Your task to perform on an android device: Go to Google maps Image 0: 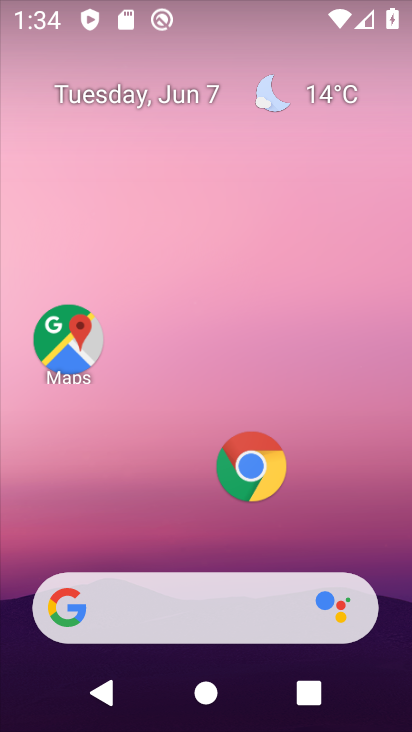
Step 0: click (68, 351)
Your task to perform on an android device: Go to Google maps Image 1: 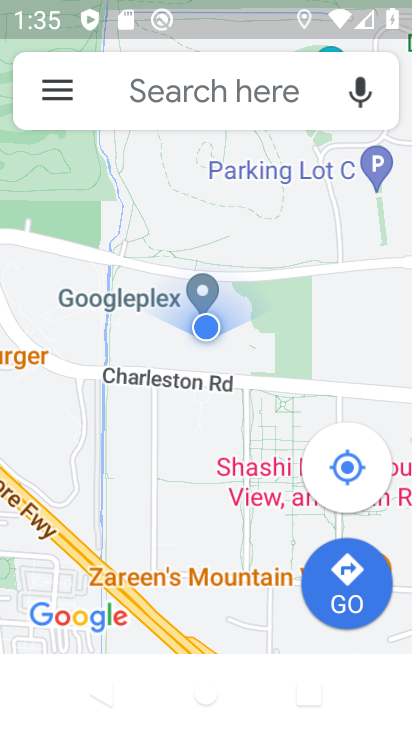
Step 1: task complete